Your task to perform on an android device: uninstall "Duolingo: language lessons" Image 0: 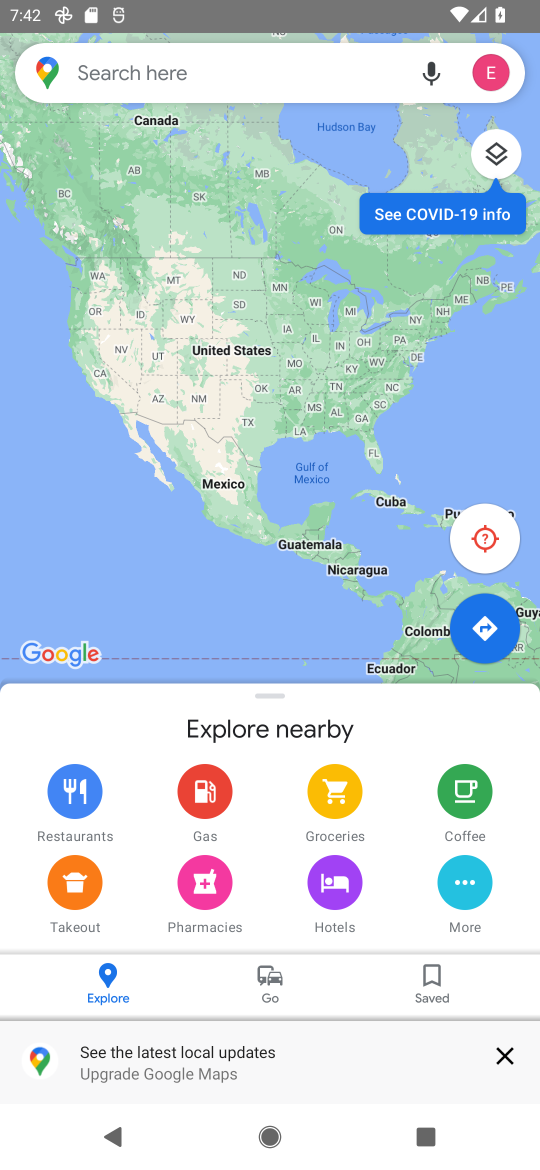
Step 0: press home button
Your task to perform on an android device: uninstall "Duolingo: language lessons" Image 1: 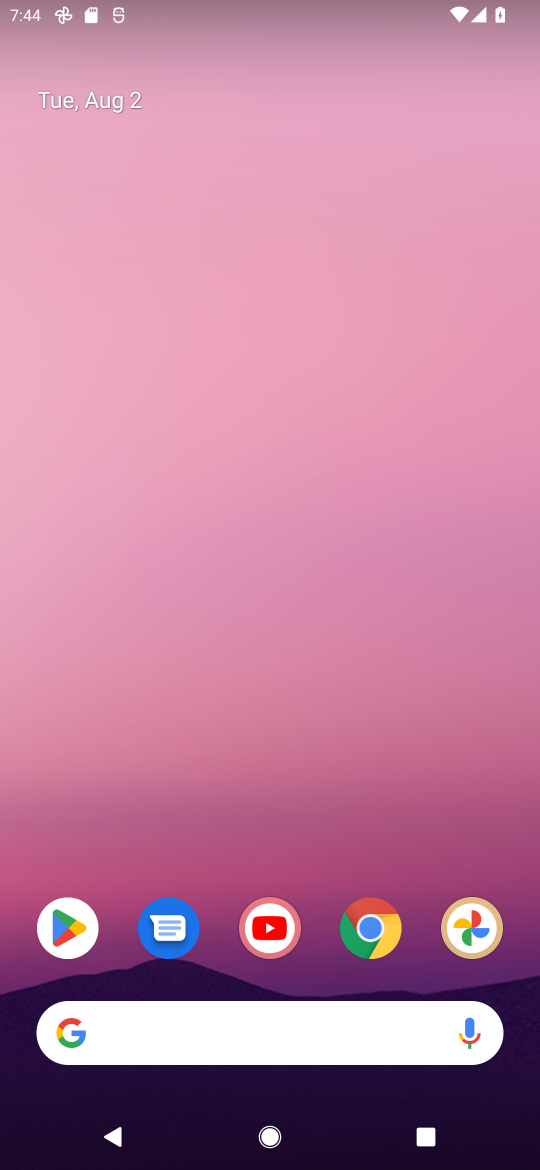
Step 1: click (52, 935)
Your task to perform on an android device: uninstall "Duolingo: language lessons" Image 2: 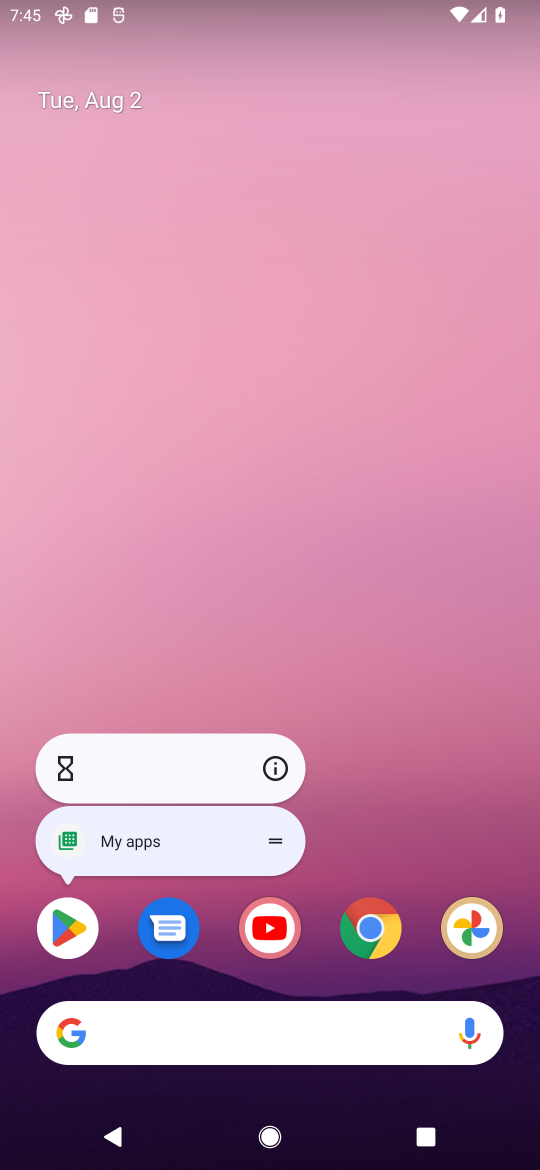
Step 2: click (25, 877)
Your task to perform on an android device: uninstall "Duolingo: language lessons" Image 3: 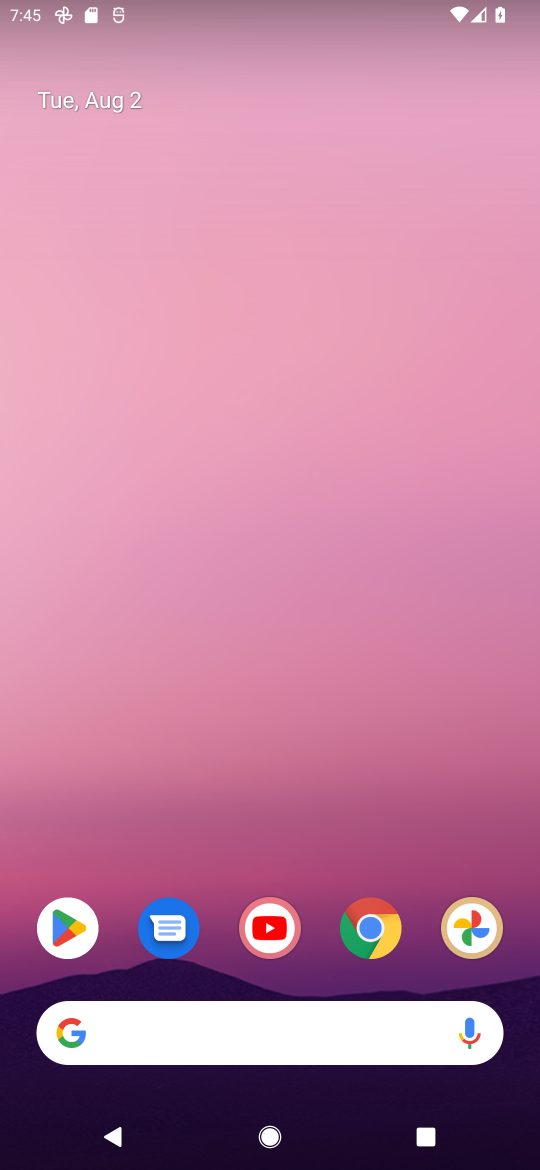
Step 3: click (50, 935)
Your task to perform on an android device: uninstall "Duolingo: language lessons" Image 4: 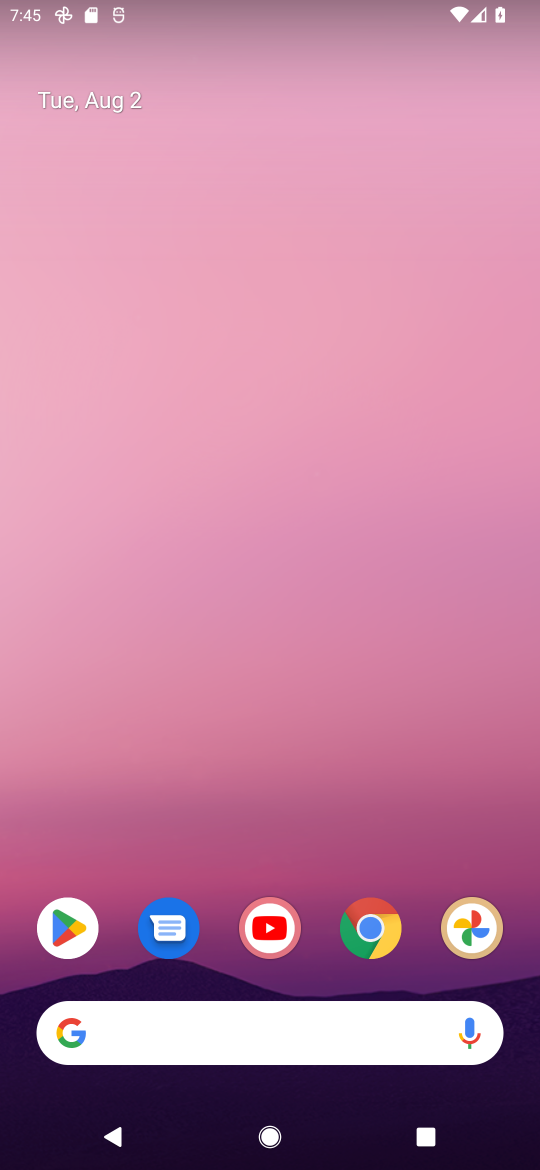
Step 4: click (50, 935)
Your task to perform on an android device: uninstall "Duolingo: language lessons" Image 5: 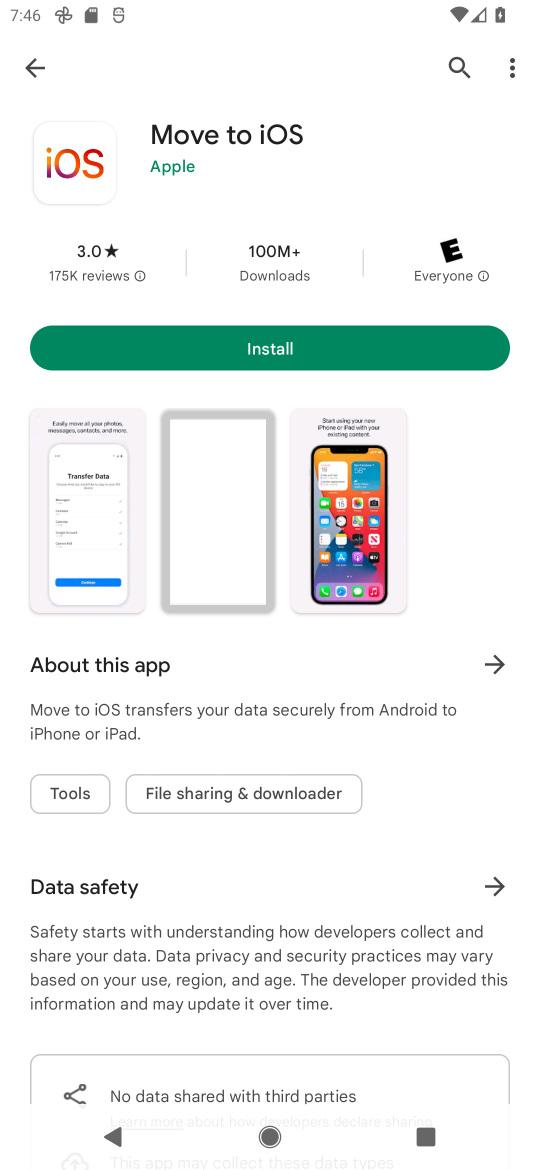
Step 5: click (450, 66)
Your task to perform on an android device: uninstall "Duolingo: language lessons" Image 6: 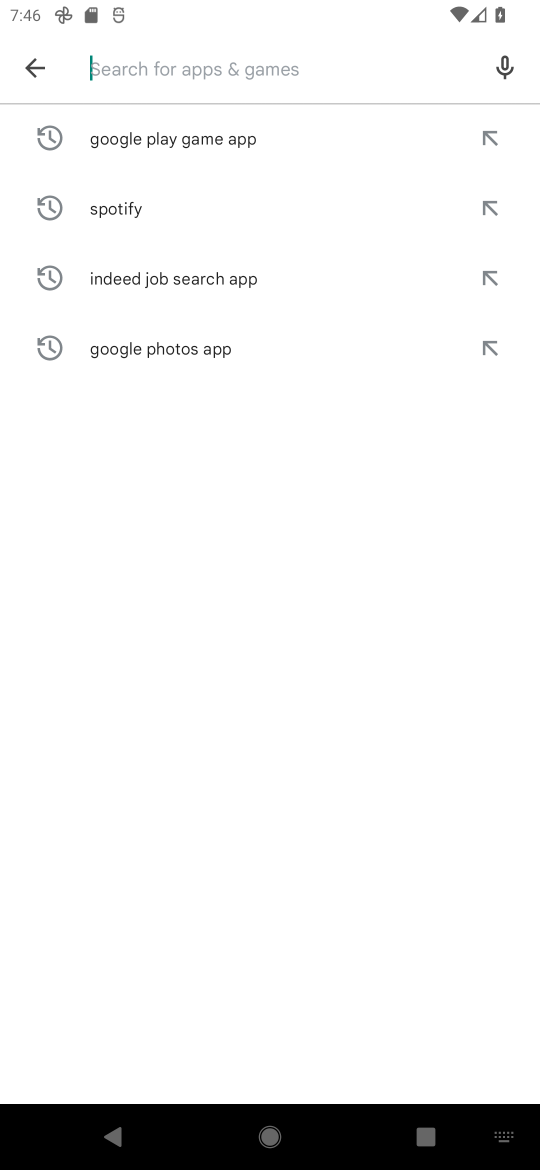
Step 6: type "Duolingo"
Your task to perform on an android device: uninstall "Duolingo: language lessons" Image 7: 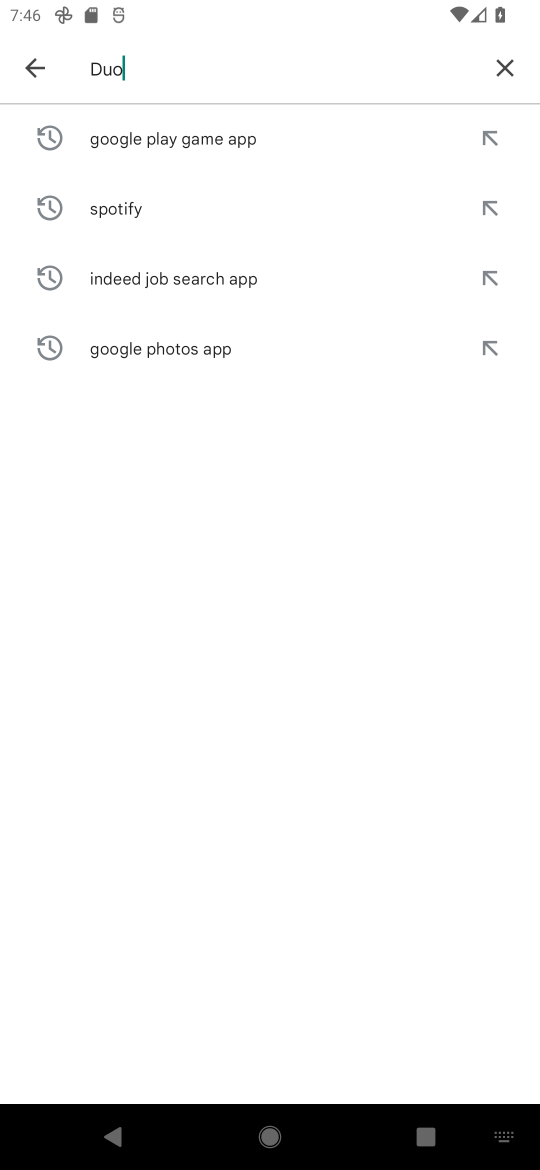
Step 7: type ""
Your task to perform on an android device: uninstall "Duolingo: language lessons" Image 8: 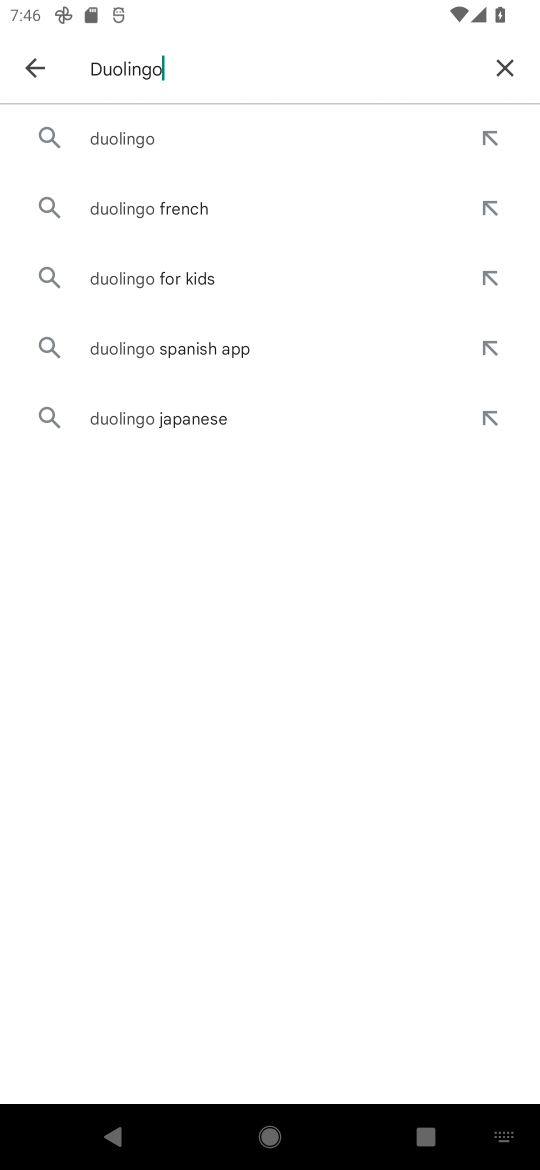
Step 8: click (69, 134)
Your task to perform on an android device: uninstall "Duolingo: language lessons" Image 9: 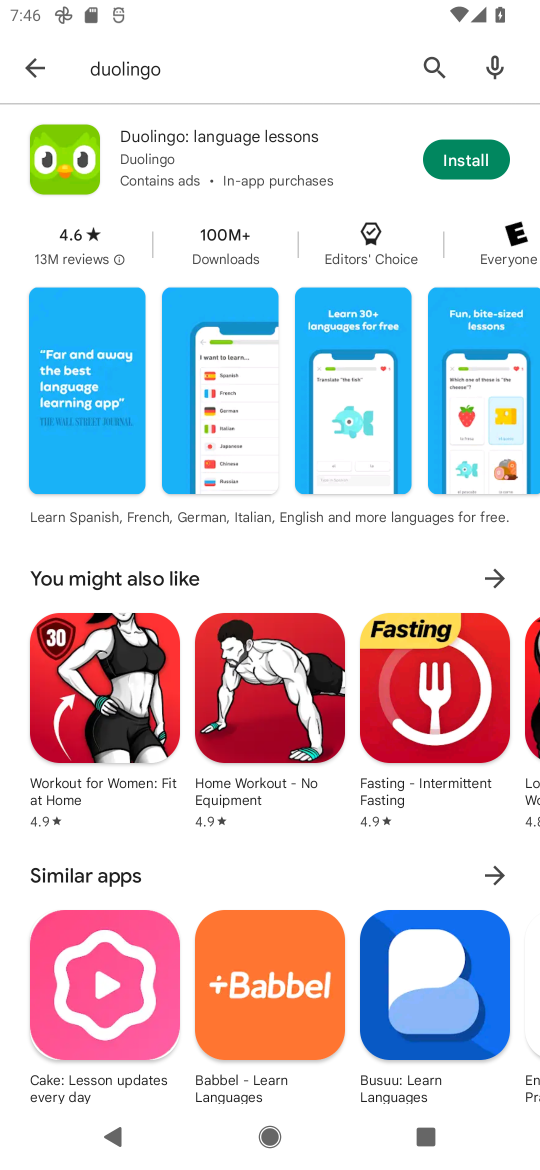
Step 9: task complete